Your task to perform on an android device: Go to wifi settings Image 0: 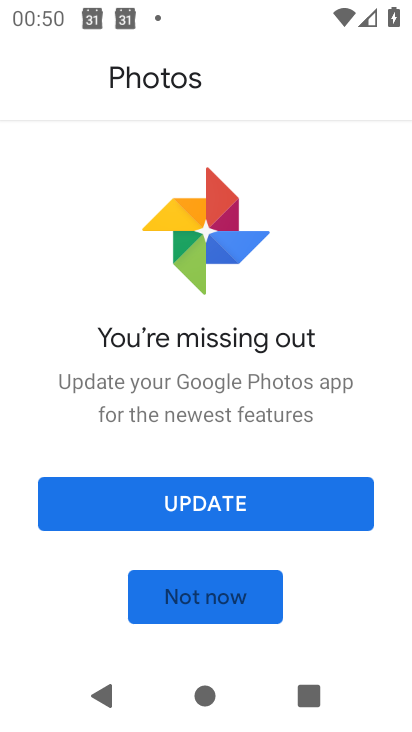
Step 0: press home button
Your task to perform on an android device: Go to wifi settings Image 1: 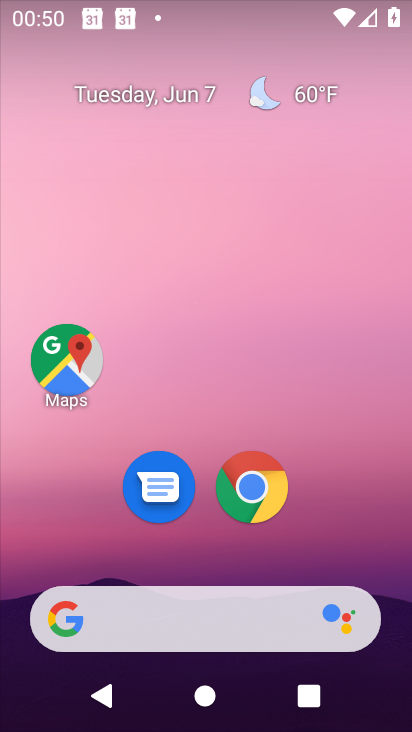
Step 1: drag from (377, 556) to (268, 189)
Your task to perform on an android device: Go to wifi settings Image 2: 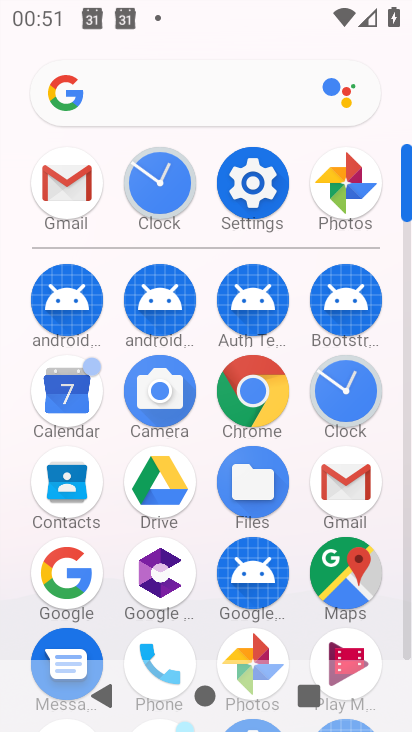
Step 2: click (248, 196)
Your task to perform on an android device: Go to wifi settings Image 3: 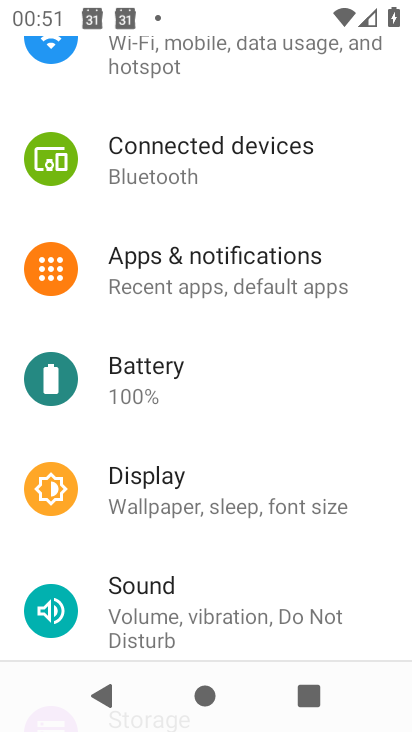
Step 3: drag from (207, 199) to (272, 646)
Your task to perform on an android device: Go to wifi settings Image 4: 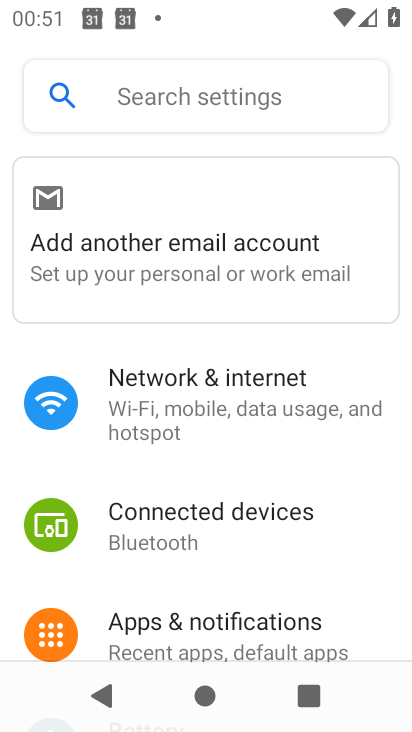
Step 4: click (247, 405)
Your task to perform on an android device: Go to wifi settings Image 5: 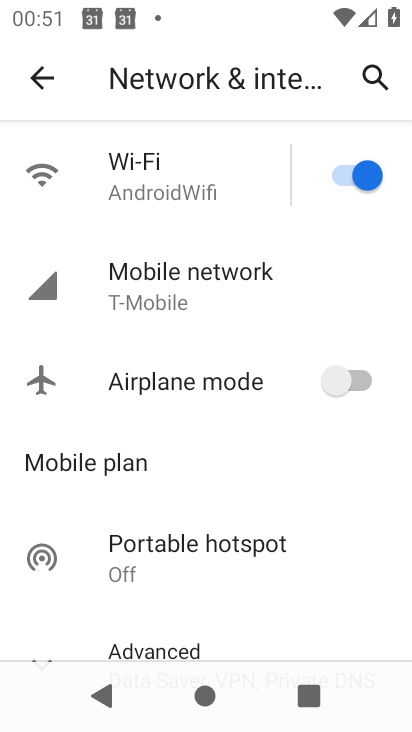
Step 5: click (180, 178)
Your task to perform on an android device: Go to wifi settings Image 6: 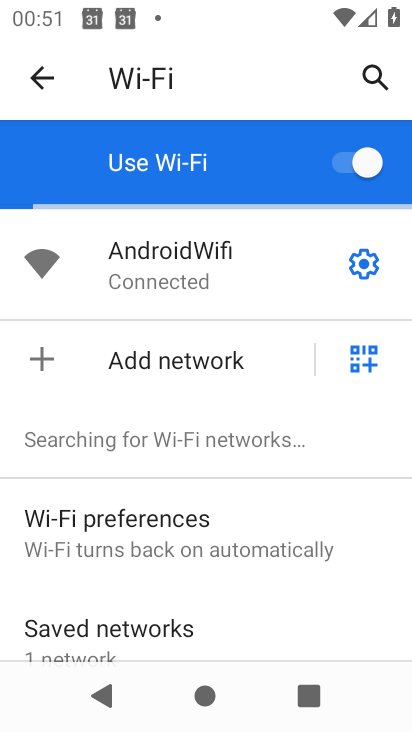
Step 6: task complete